Your task to perform on an android device: Open Google Maps Image 0: 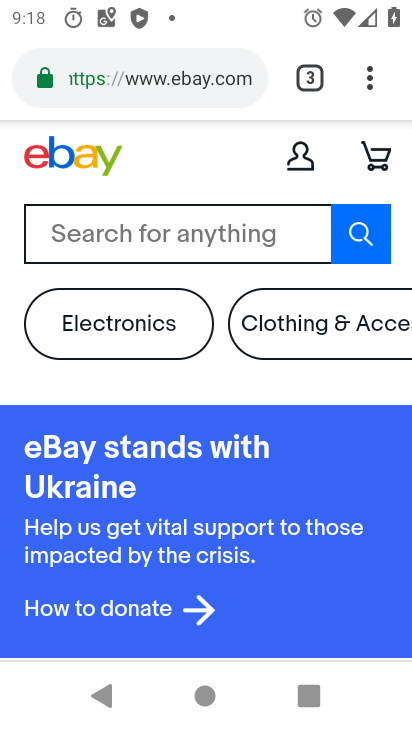
Step 0: press home button
Your task to perform on an android device: Open Google Maps Image 1: 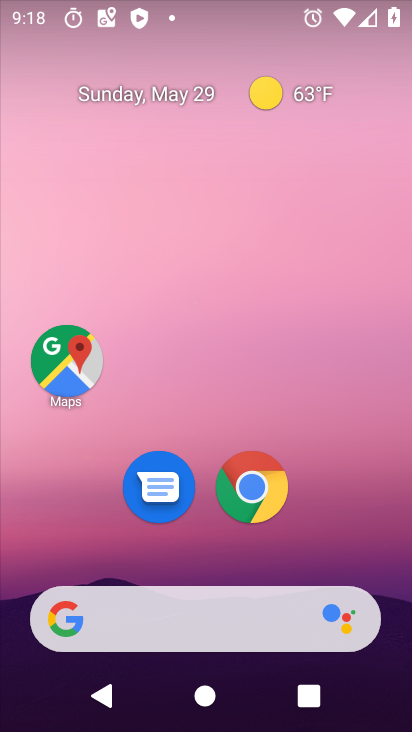
Step 1: drag from (285, 581) to (295, 1)
Your task to perform on an android device: Open Google Maps Image 2: 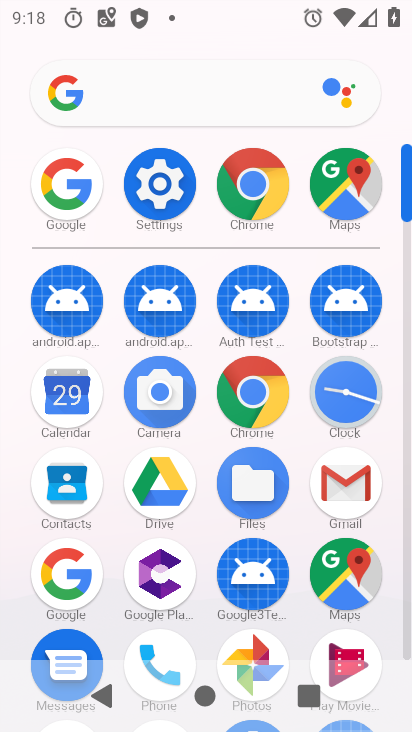
Step 2: click (358, 578)
Your task to perform on an android device: Open Google Maps Image 3: 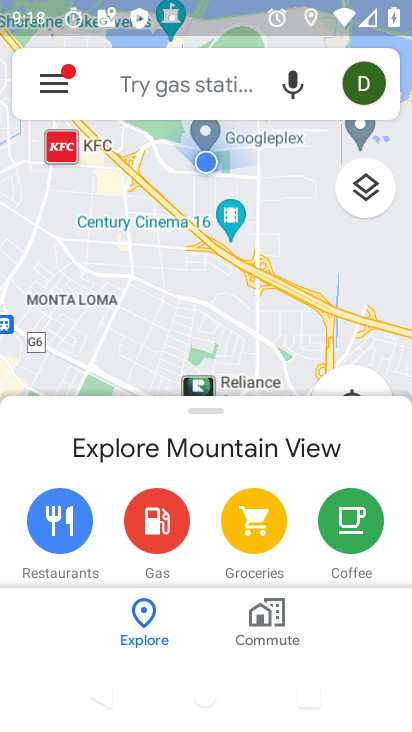
Step 3: task complete